Your task to perform on an android device: toggle wifi Image 0: 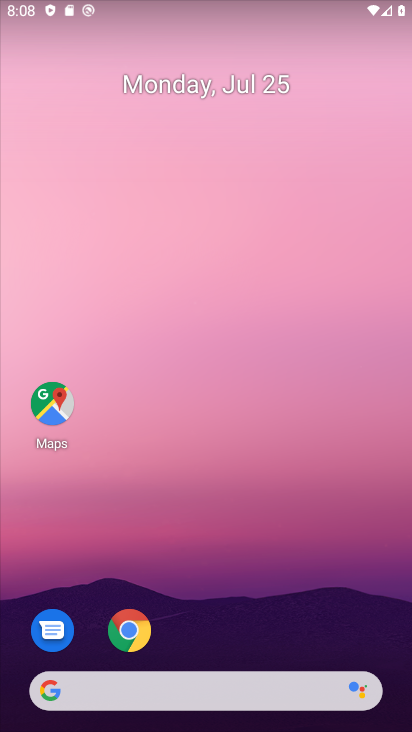
Step 0: drag from (31, 707) to (291, 152)
Your task to perform on an android device: toggle wifi Image 1: 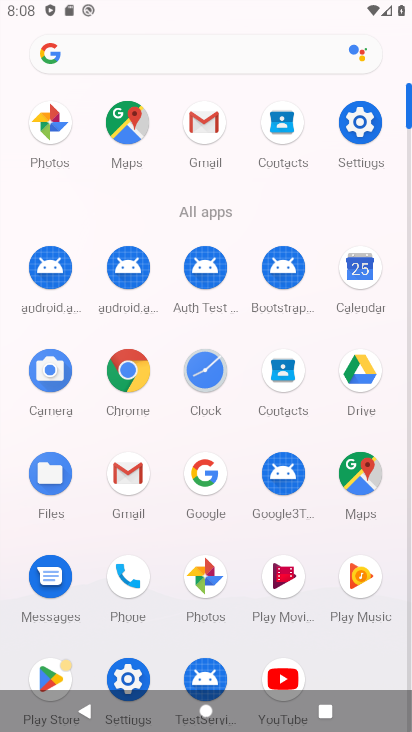
Step 1: click (133, 688)
Your task to perform on an android device: toggle wifi Image 2: 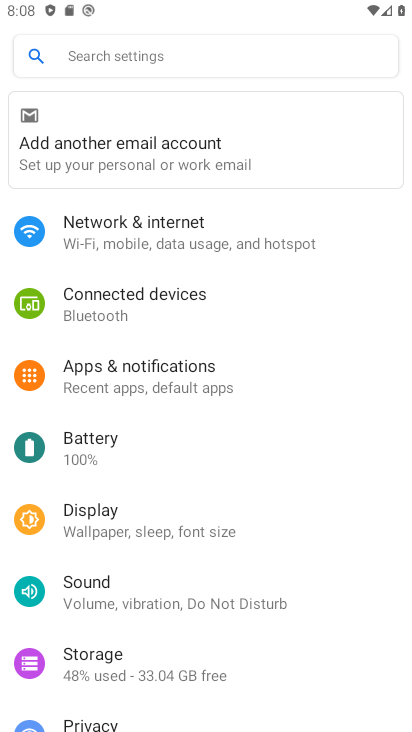
Step 2: click (110, 240)
Your task to perform on an android device: toggle wifi Image 3: 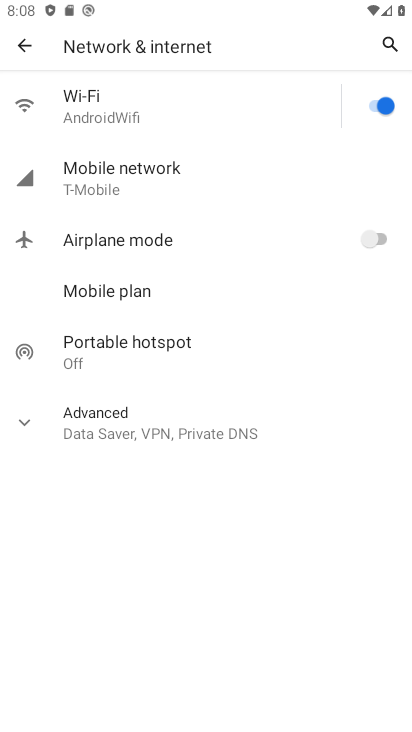
Step 3: task complete